Your task to perform on an android device: star an email in the gmail app Image 0: 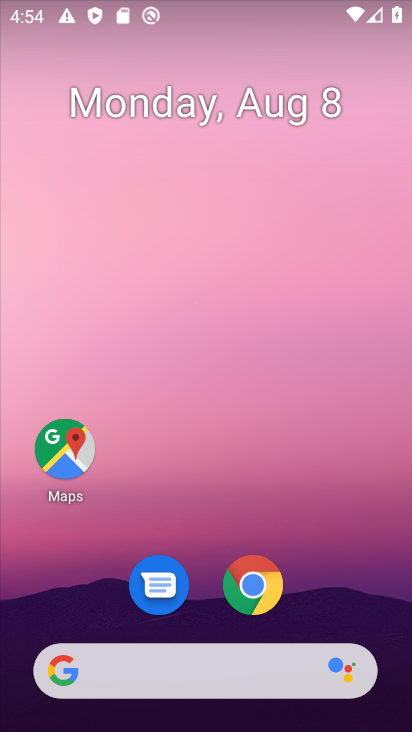
Step 0: drag from (227, 514) to (241, 14)
Your task to perform on an android device: star an email in the gmail app Image 1: 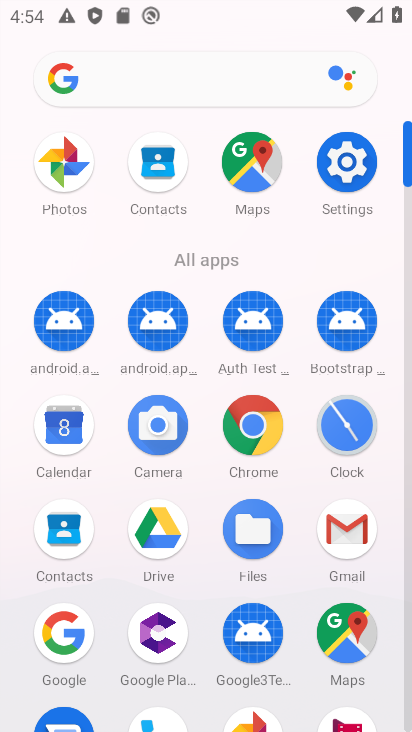
Step 1: click (345, 524)
Your task to perform on an android device: star an email in the gmail app Image 2: 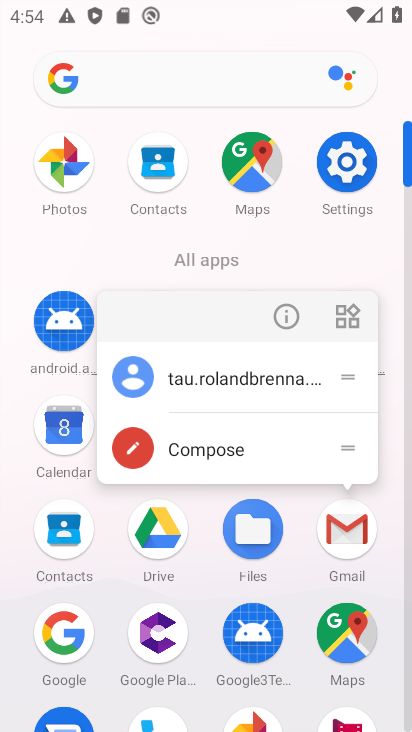
Step 2: click (344, 521)
Your task to perform on an android device: star an email in the gmail app Image 3: 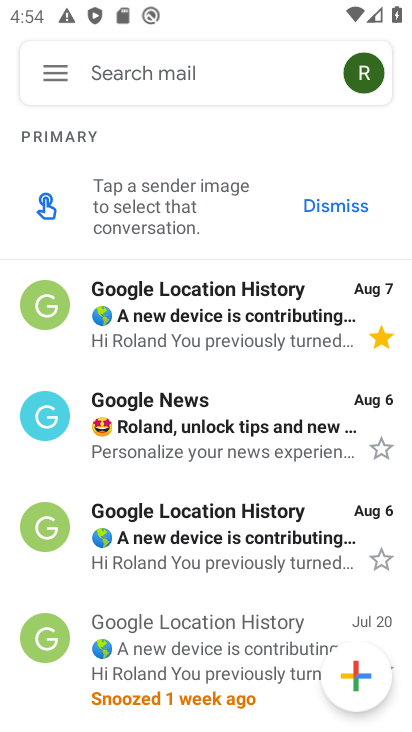
Step 3: click (385, 442)
Your task to perform on an android device: star an email in the gmail app Image 4: 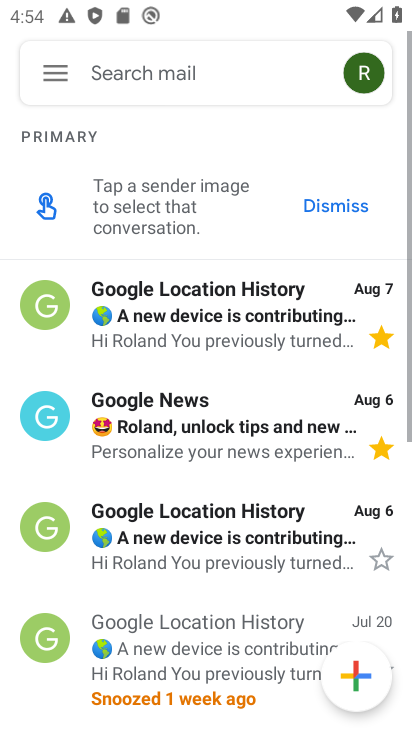
Step 4: task complete